Your task to perform on an android device: clear all cookies in the chrome app Image 0: 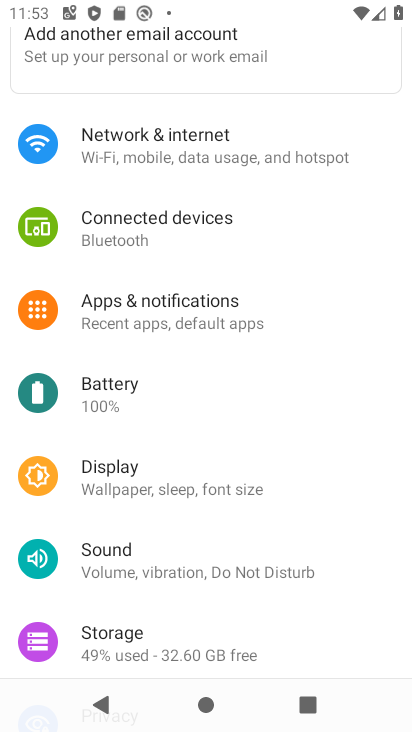
Step 0: press home button
Your task to perform on an android device: clear all cookies in the chrome app Image 1: 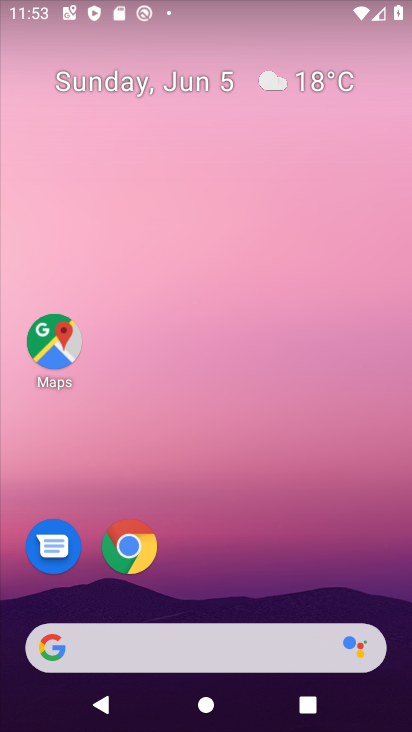
Step 1: click (149, 551)
Your task to perform on an android device: clear all cookies in the chrome app Image 2: 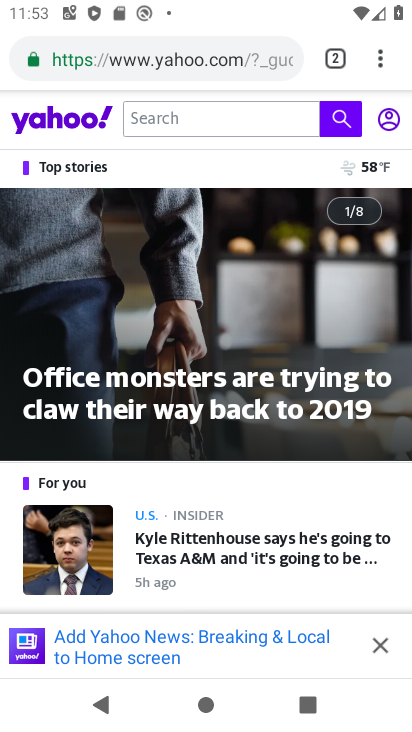
Step 2: click (382, 54)
Your task to perform on an android device: clear all cookies in the chrome app Image 3: 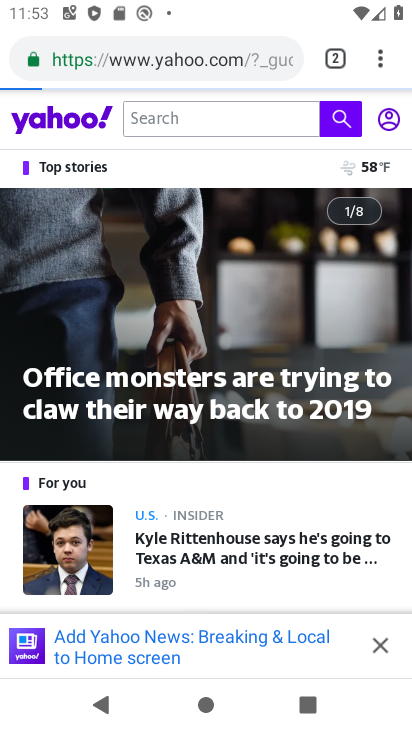
Step 3: drag from (382, 54) to (209, 581)
Your task to perform on an android device: clear all cookies in the chrome app Image 4: 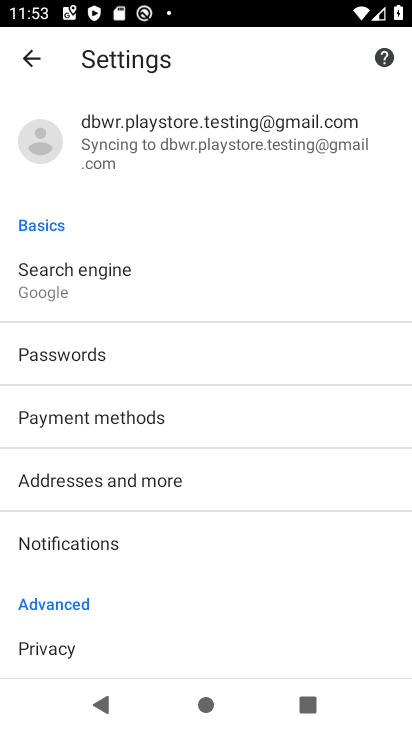
Step 4: drag from (238, 598) to (290, 183)
Your task to perform on an android device: clear all cookies in the chrome app Image 5: 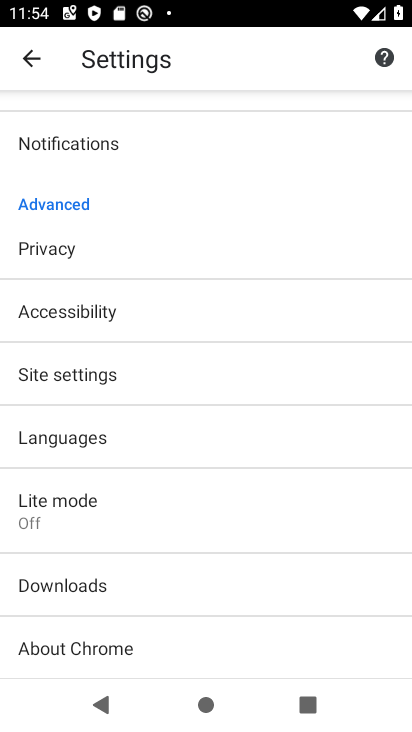
Step 5: click (89, 257)
Your task to perform on an android device: clear all cookies in the chrome app Image 6: 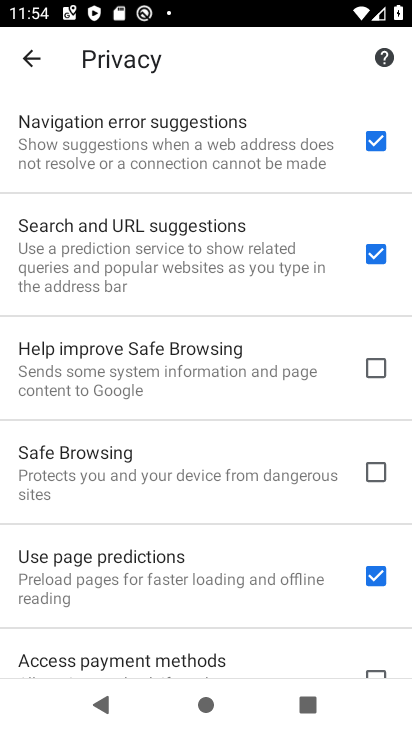
Step 6: drag from (198, 617) to (217, 218)
Your task to perform on an android device: clear all cookies in the chrome app Image 7: 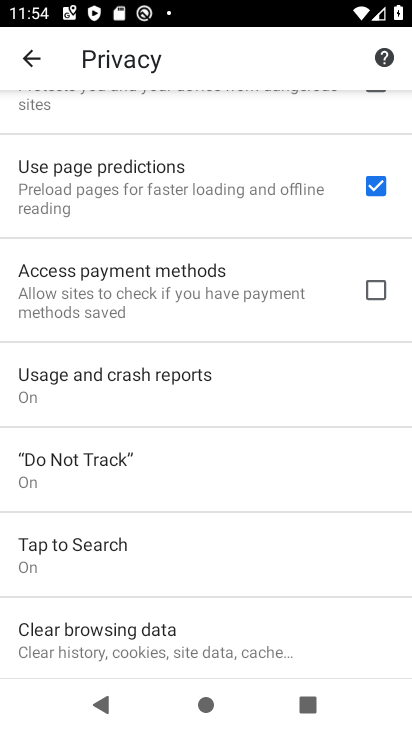
Step 7: click (160, 641)
Your task to perform on an android device: clear all cookies in the chrome app Image 8: 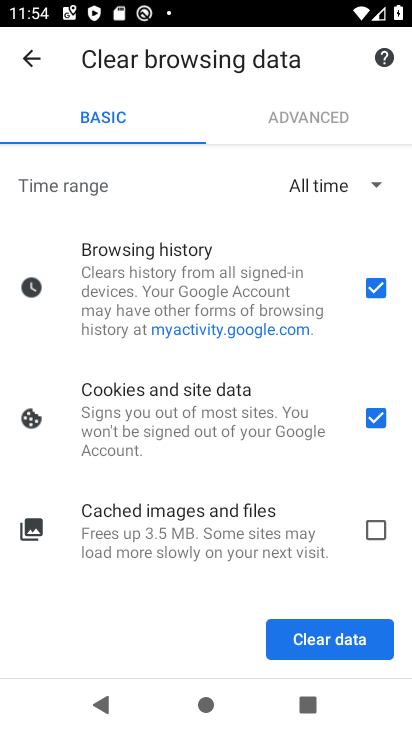
Step 8: click (376, 279)
Your task to perform on an android device: clear all cookies in the chrome app Image 9: 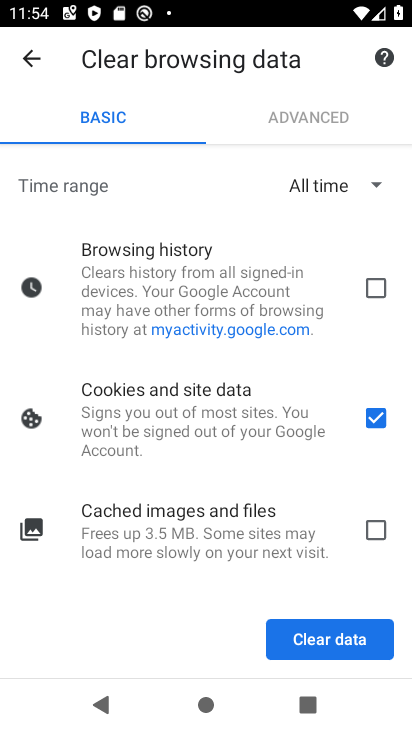
Step 9: click (333, 639)
Your task to perform on an android device: clear all cookies in the chrome app Image 10: 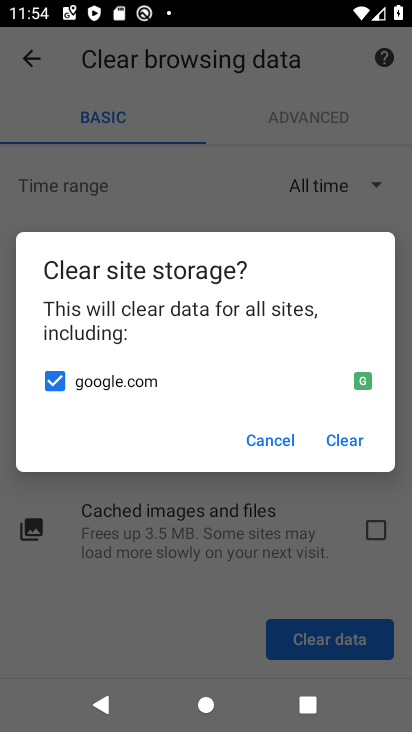
Step 10: click (354, 445)
Your task to perform on an android device: clear all cookies in the chrome app Image 11: 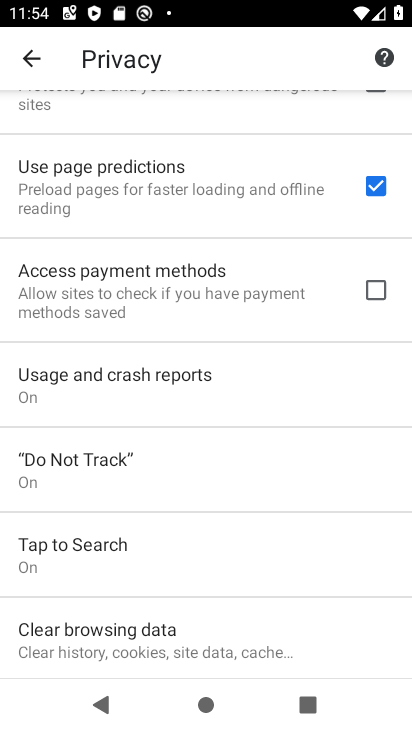
Step 11: task complete